Your task to perform on an android device: What's on my calendar tomorrow? Image 0: 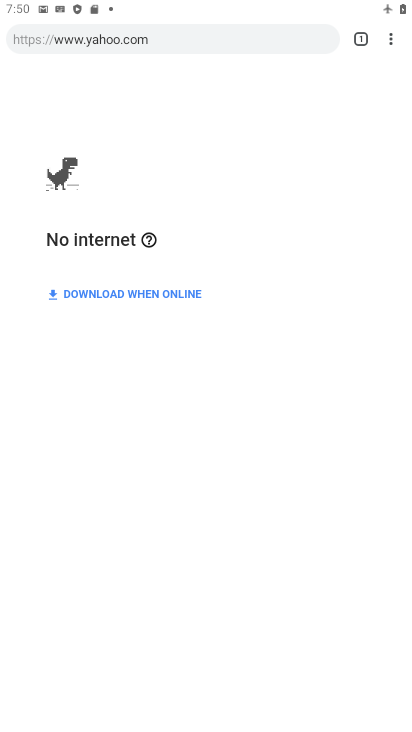
Step 0: press home button
Your task to perform on an android device: What's on my calendar tomorrow? Image 1: 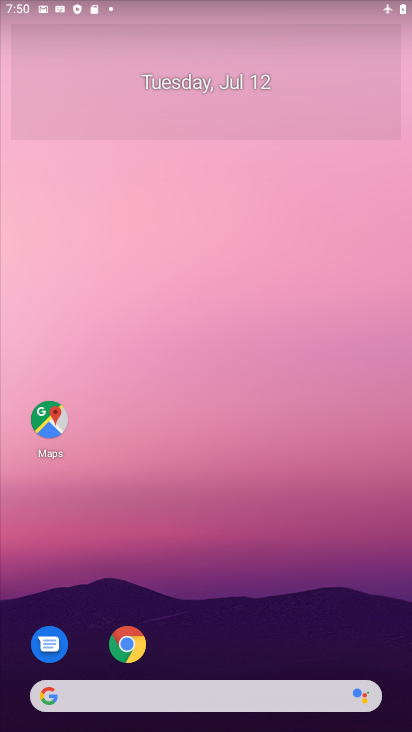
Step 1: drag from (207, 651) to (194, 196)
Your task to perform on an android device: What's on my calendar tomorrow? Image 2: 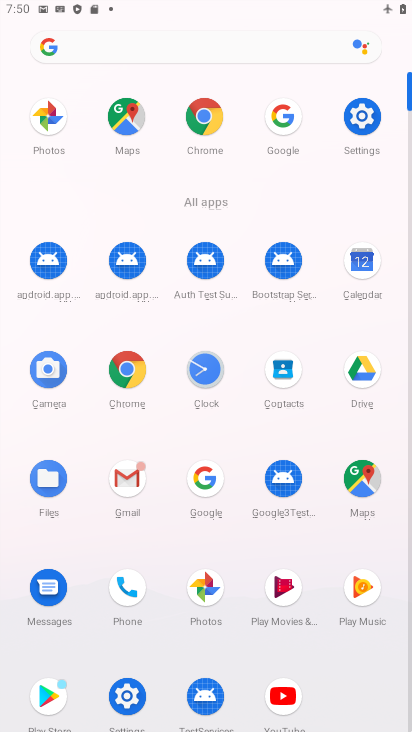
Step 2: click (363, 284)
Your task to perform on an android device: What's on my calendar tomorrow? Image 3: 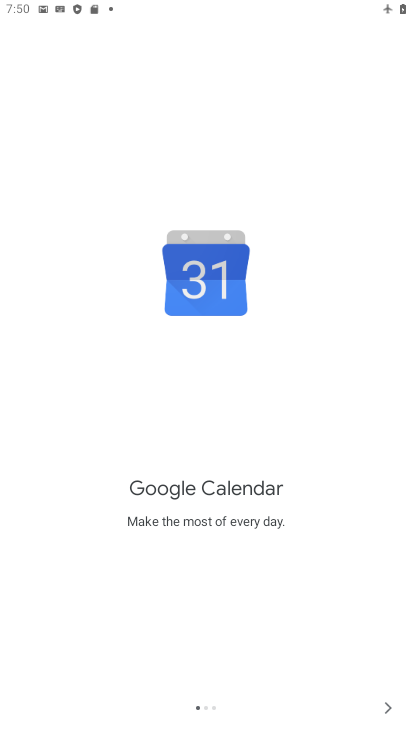
Step 3: click (383, 718)
Your task to perform on an android device: What's on my calendar tomorrow? Image 4: 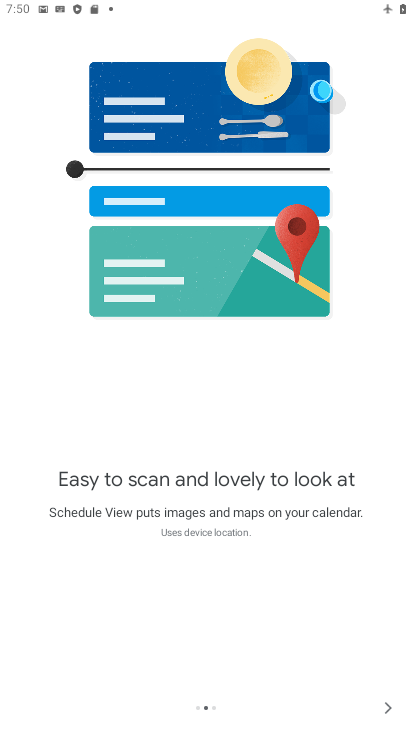
Step 4: click (385, 718)
Your task to perform on an android device: What's on my calendar tomorrow? Image 5: 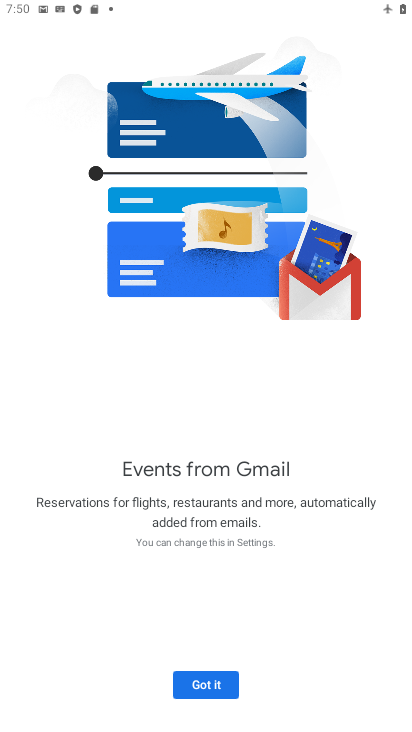
Step 5: click (188, 677)
Your task to perform on an android device: What's on my calendar tomorrow? Image 6: 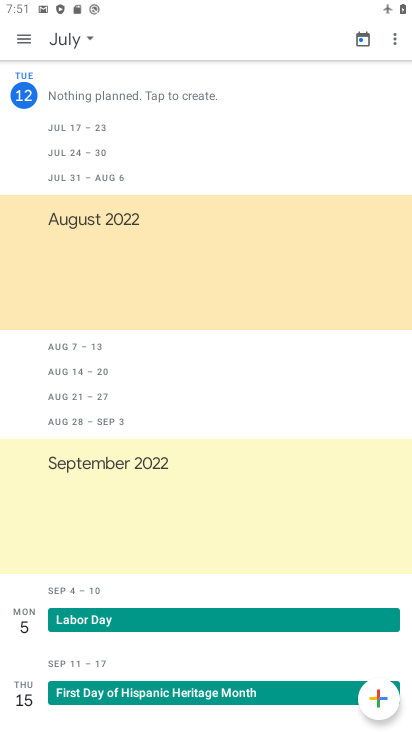
Step 6: click (81, 38)
Your task to perform on an android device: What's on my calendar tomorrow? Image 7: 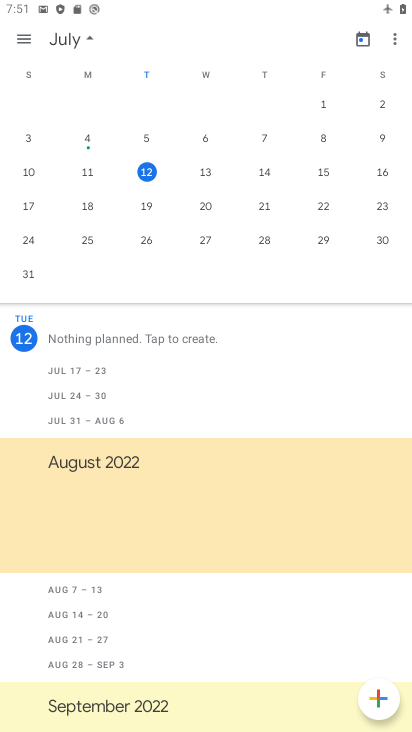
Step 7: click (212, 180)
Your task to perform on an android device: What's on my calendar tomorrow? Image 8: 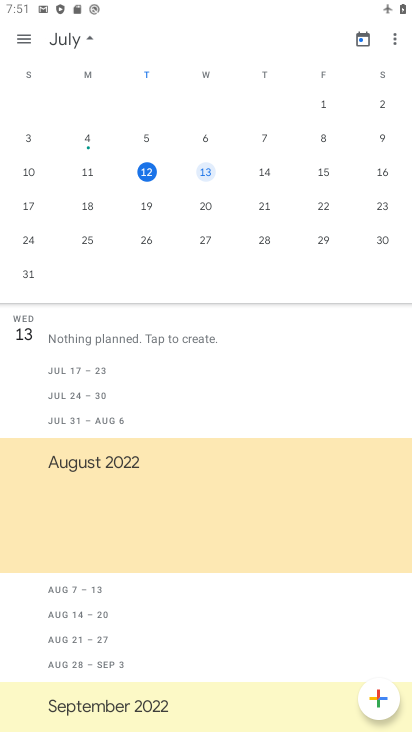
Step 8: click (207, 169)
Your task to perform on an android device: What's on my calendar tomorrow? Image 9: 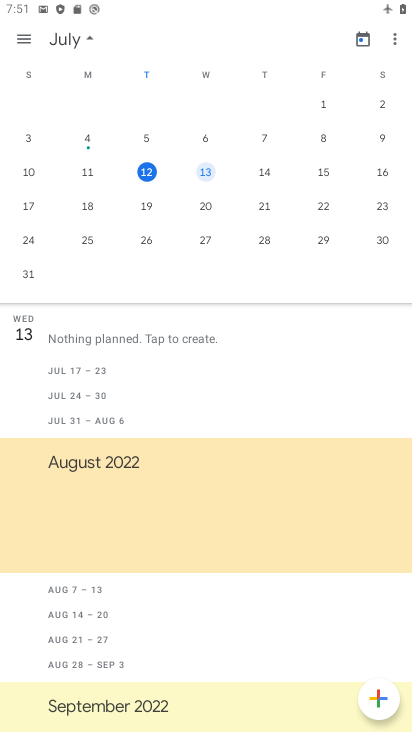
Step 9: click (204, 170)
Your task to perform on an android device: What's on my calendar tomorrow? Image 10: 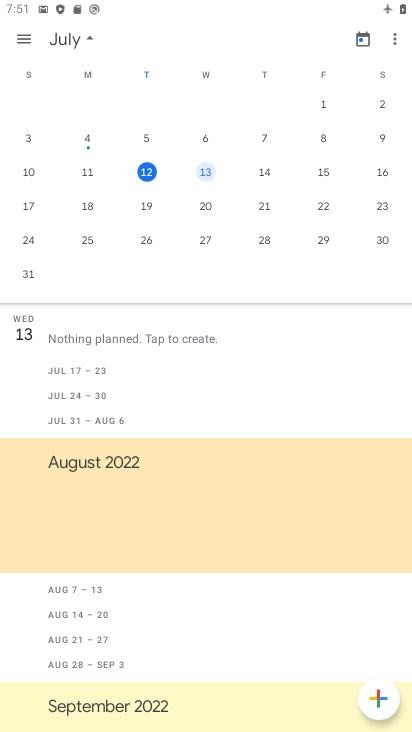
Step 10: task complete